Your task to perform on an android device: Do I have any events today? Image 0: 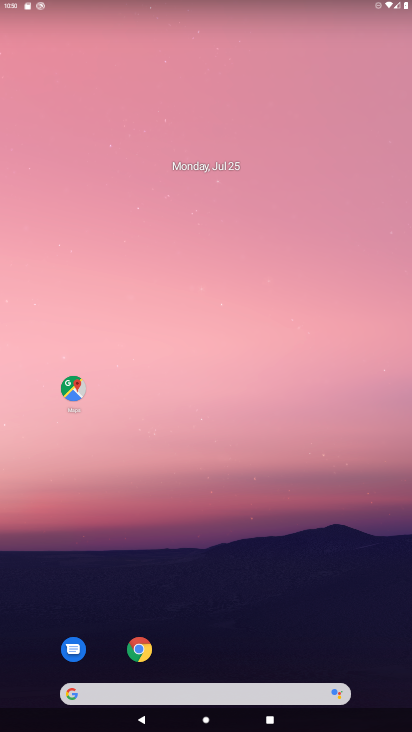
Step 0: drag from (372, 662) to (348, 202)
Your task to perform on an android device: Do I have any events today? Image 1: 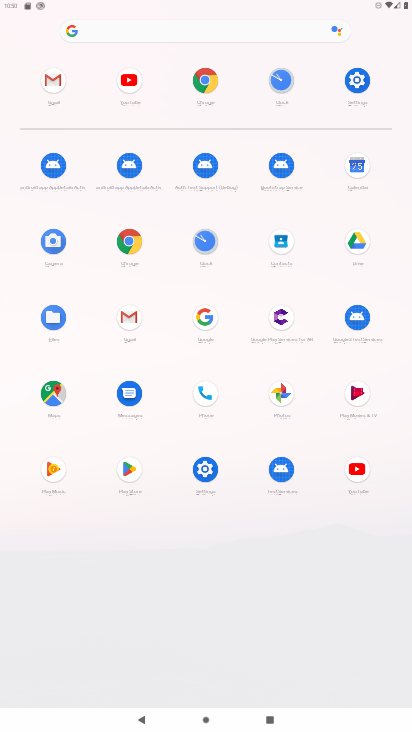
Step 1: click (360, 166)
Your task to perform on an android device: Do I have any events today? Image 2: 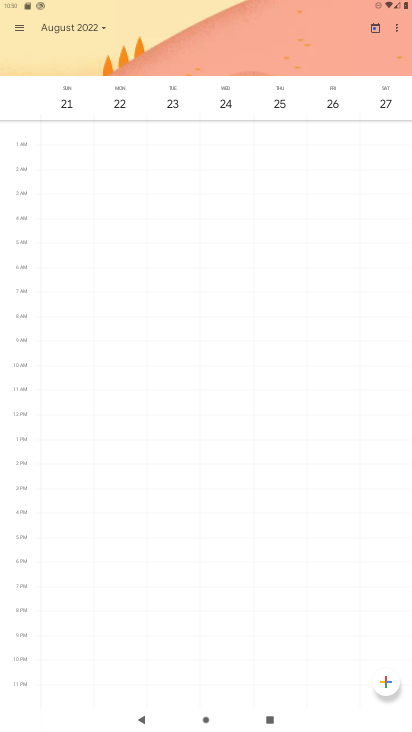
Step 2: click (22, 30)
Your task to perform on an android device: Do I have any events today? Image 3: 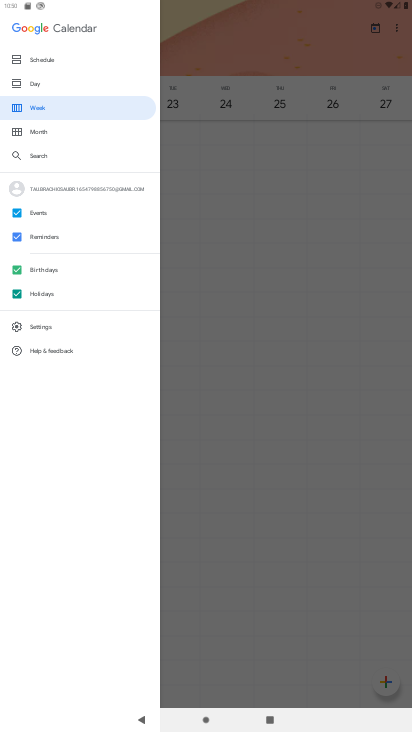
Step 3: click (29, 85)
Your task to perform on an android device: Do I have any events today? Image 4: 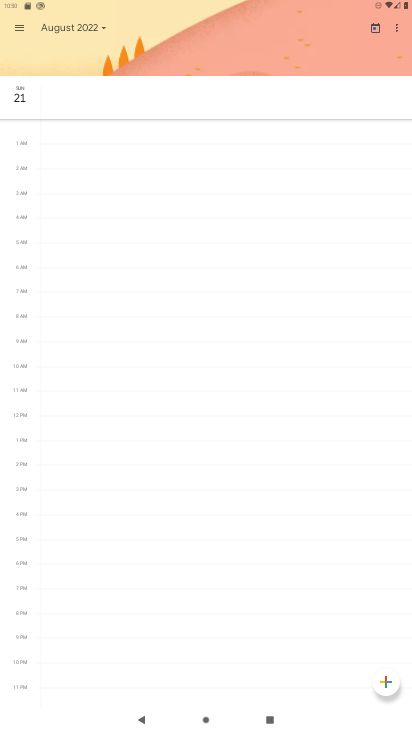
Step 4: click (100, 23)
Your task to perform on an android device: Do I have any events today? Image 5: 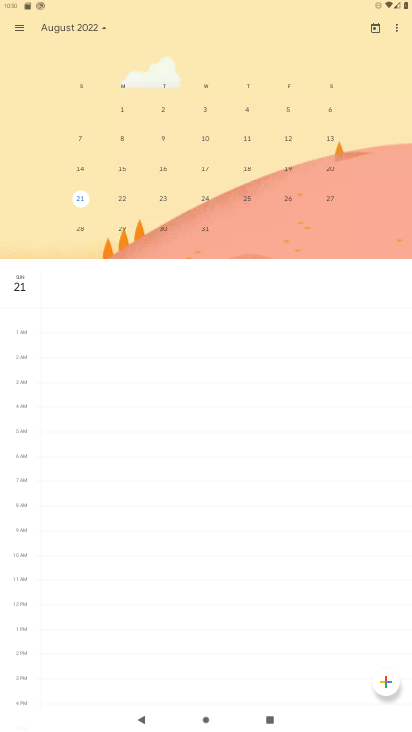
Step 5: drag from (80, 227) to (398, 211)
Your task to perform on an android device: Do I have any events today? Image 6: 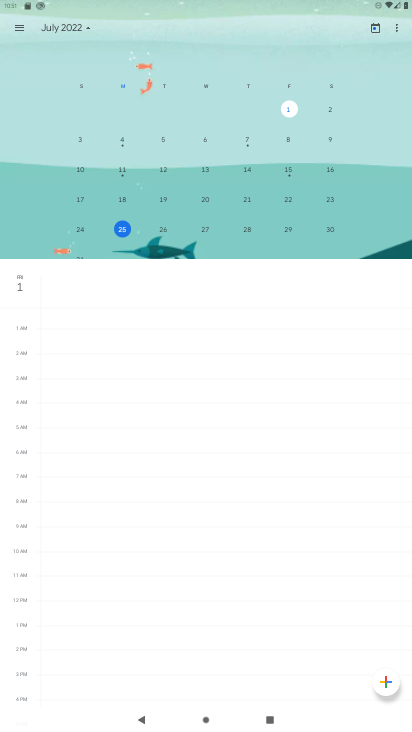
Step 6: click (119, 227)
Your task to perform on an android device: Do I have any events today? Image 7: 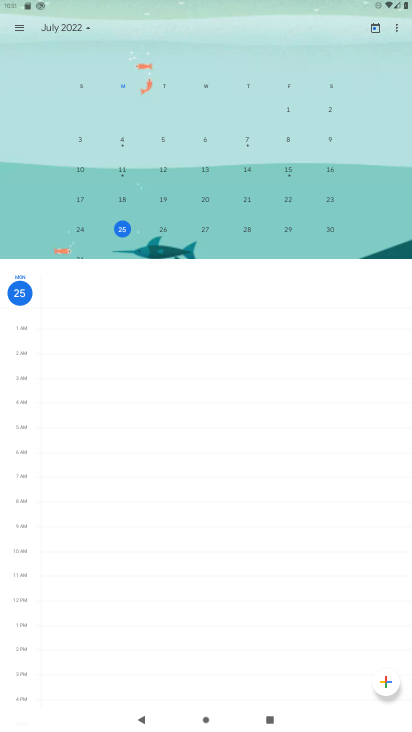
Step 7: task complete